Your task to perform on an android device: turn off improve location accuracy Image 0: 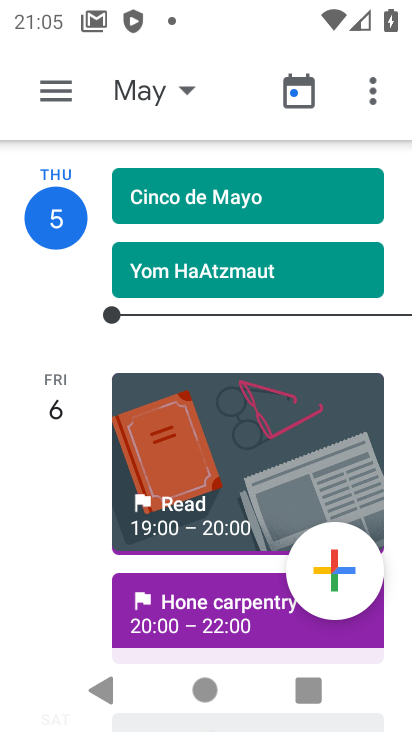
Step 0: press home button
Your task to perform on an android device: turn off improve location accuracy Image 1: 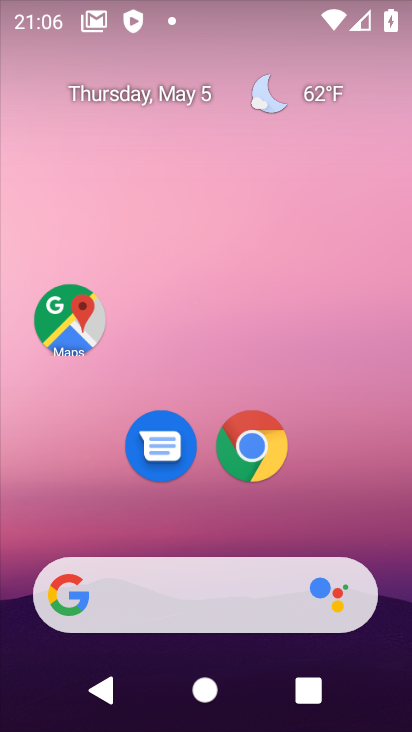
Step 1: drag from (283, 633) to (237, 190)
Your task to perform on an android device: turn off improve location accuracy Image 2: 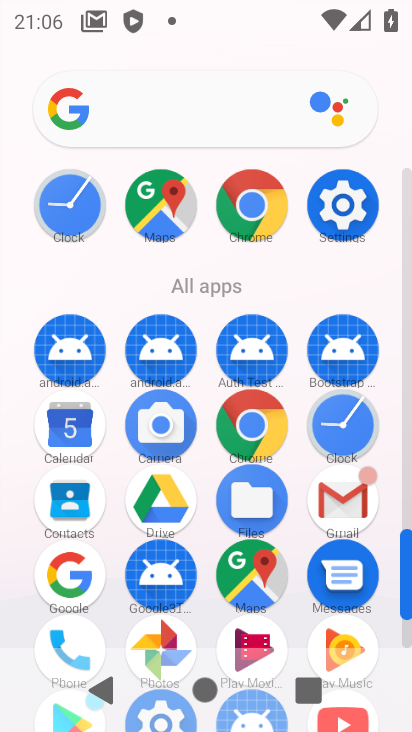
Step 2: click (338, 212)
Your task to perform on an android device: turn off improve location accuracy Image 3: 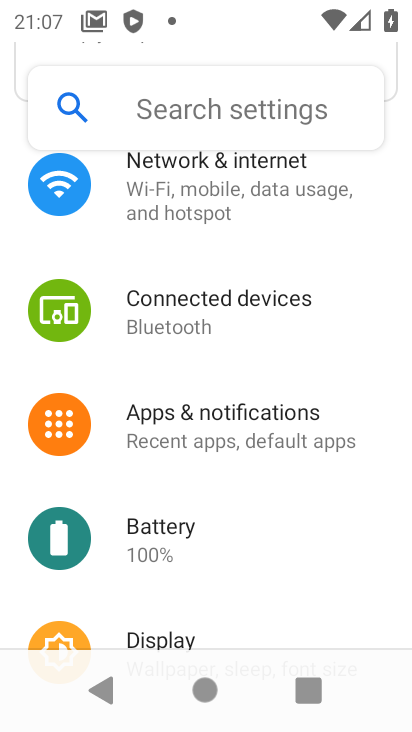
Step 3: click (238, 125)
Your task to perform on an android device: turn off improve location accuracy Image 4: 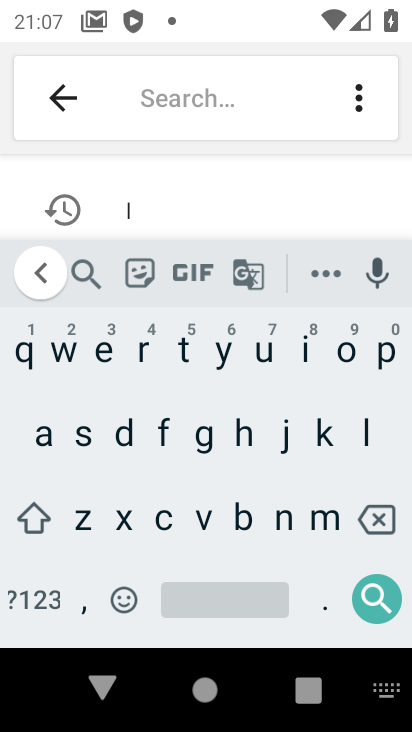
Step 4: click (151, 202)
Your task to perform on an android device: turn off improve location accuracy Image 5: 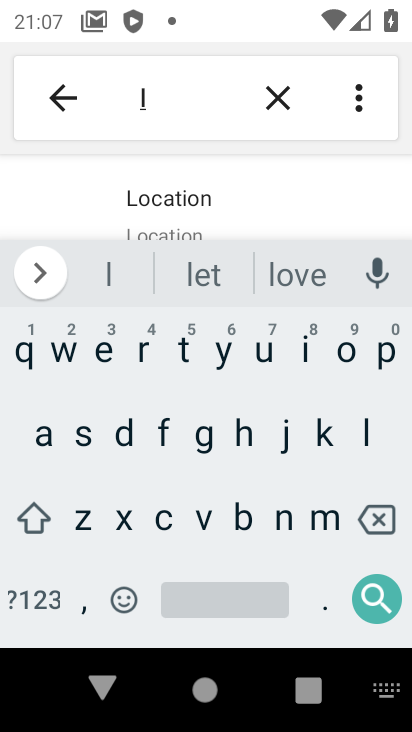
Step 5: click (148, 203)
Your task to perform on an android device: turn off improve location accuracy Image 6: 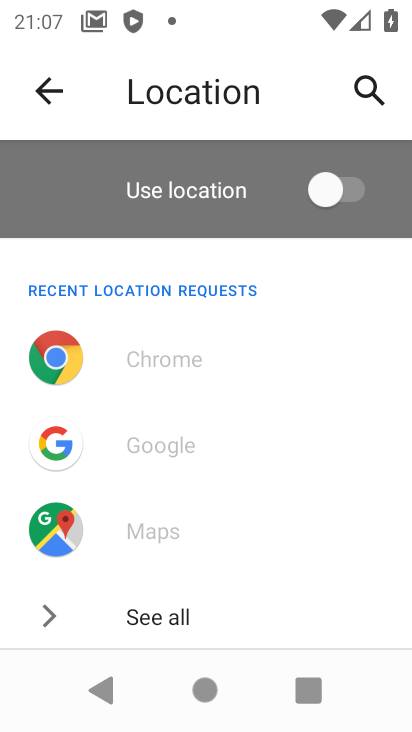
Step 6: drag from (205, 561) to (320, 243)
Your task to perform on an android device: turn off improve location accuracy Image 7: 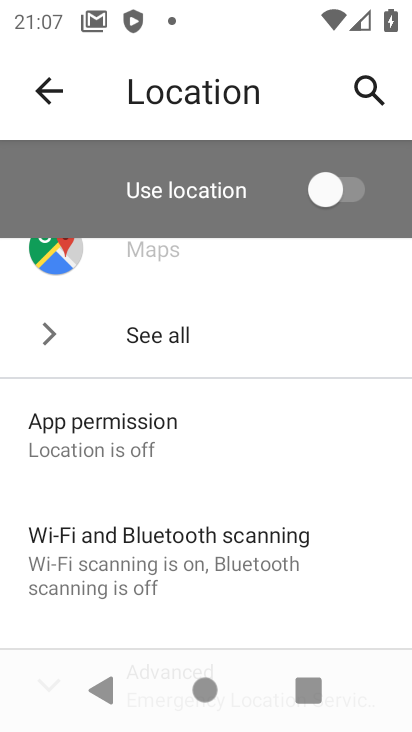
Step 7: drag from (274, 576) to (308, 335)
Your task to perform on an android device: turn off improve location accuracy Image 8: 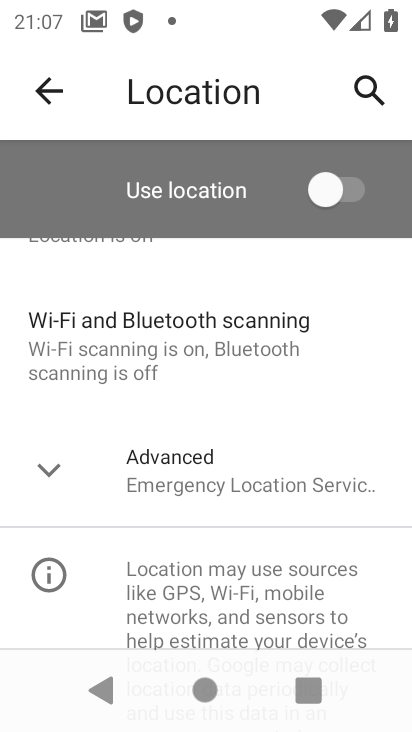
Step 8: click (183, 487)
Your task to perform on an android device: turn off improve location accuracy Image 9: 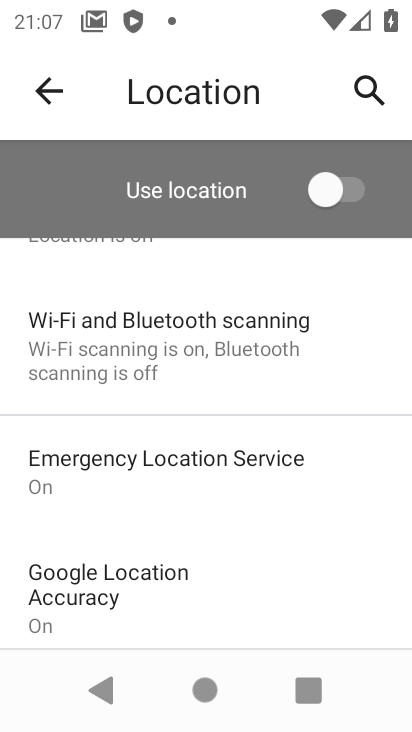
Step 9: click (180, 591)
Your task to perform on an android device: turn off improve location accuracy Image 10: 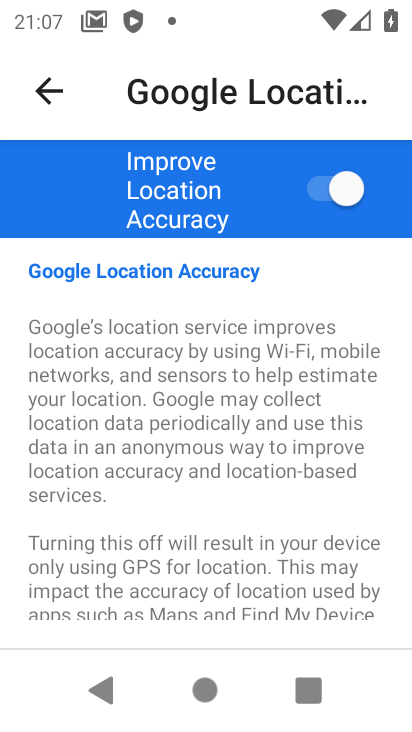
Step 10: task complete